Your task to perform on an android device: open a bookmark in the chrome app Image 0: 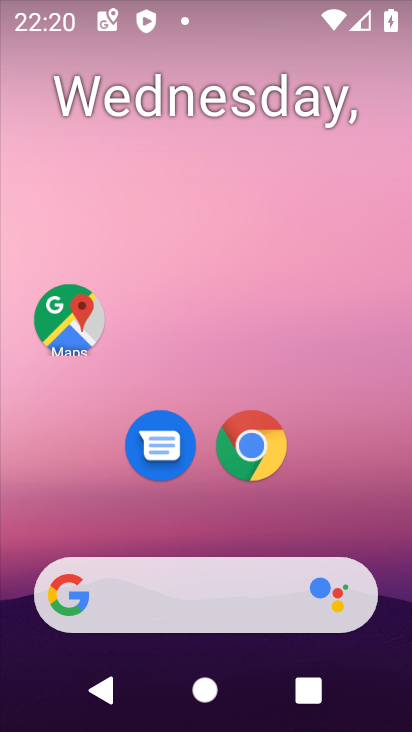
Step 0: drag from (270, 525) to (307, 185)
Your task to perform on an android device: open a bookmark in the chrome app Image 1: 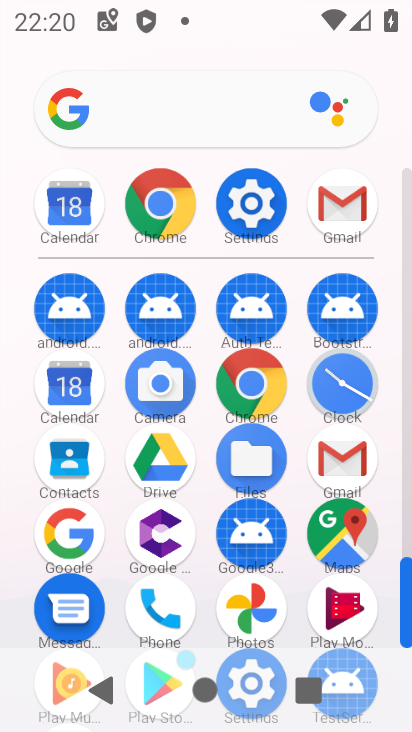
Step 1: click (244, 386)
Your task to perform on an android device: open a bookmark in the chrome app Image 2: 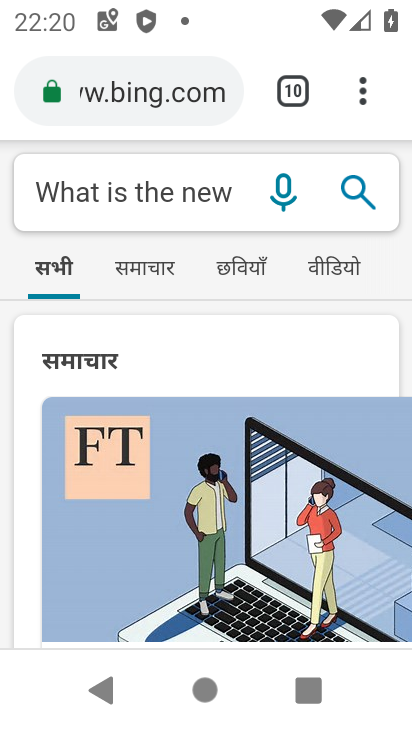
Step 2: click (367, 77)
Your task to perform on an android device: open a bookmark in the chrome app Image 3: 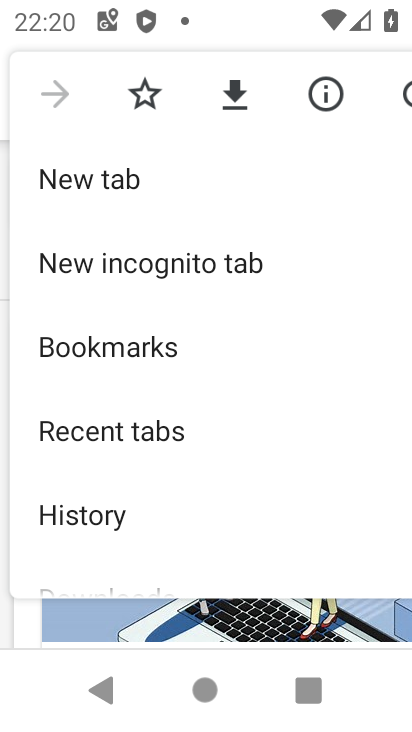
Step 3: click (112, 349)
Your task to perform on an android device: open a bookmark in the chrome app Image 4: 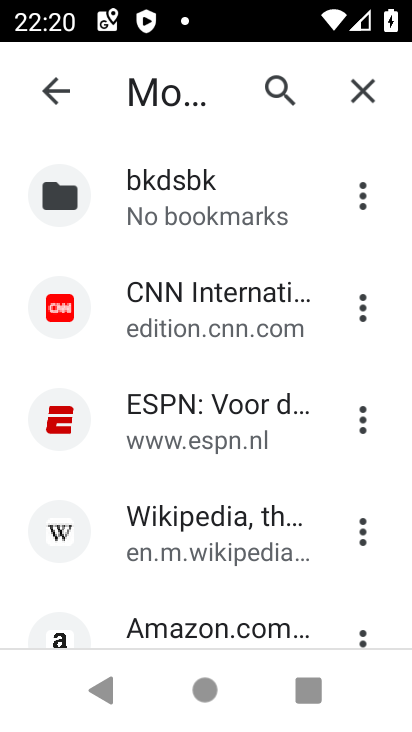
Step 4: task complete